Your task to perform on an android device: Open Google Image 0: 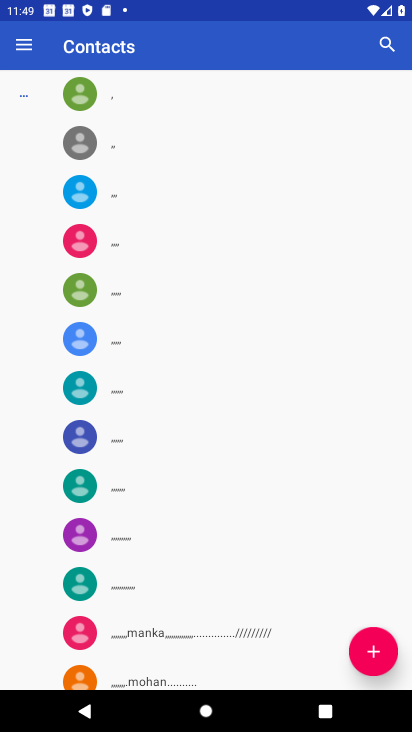
Step 0: press back button
Your task to perform on an android device: Open Google Image 1: 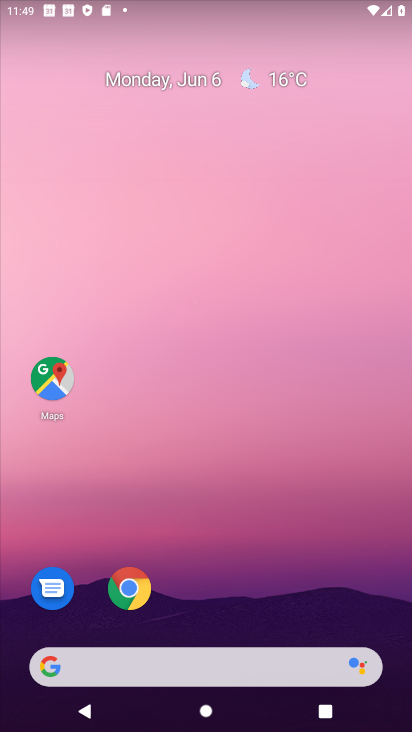
Step 1: drag from (248, 561) to (220, 62)
Your task to perform on an android device: Open Google Image 2: 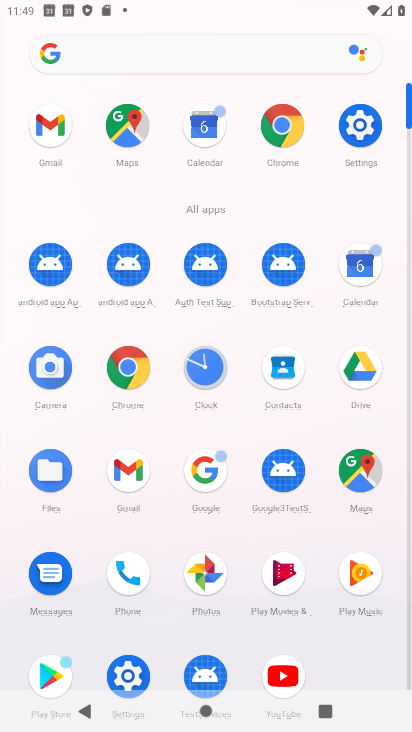
Step 2: click (202, 467)
Your task to perform on an android device: Open Google Image 3: 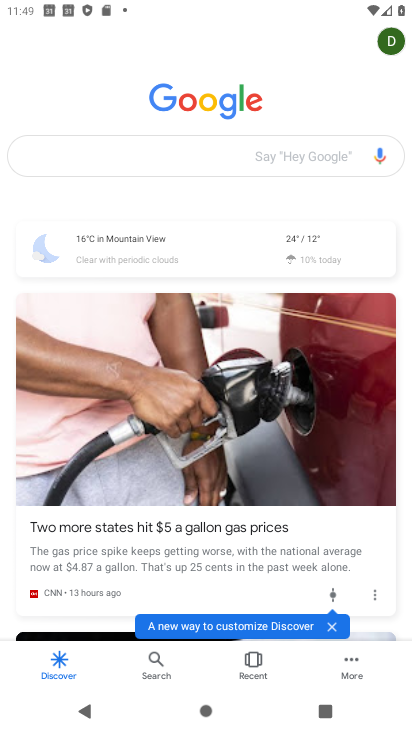
Step 3: task complete